Your task to perform on an android device: Open Youtube and go to the subscriptions tab Image 0: 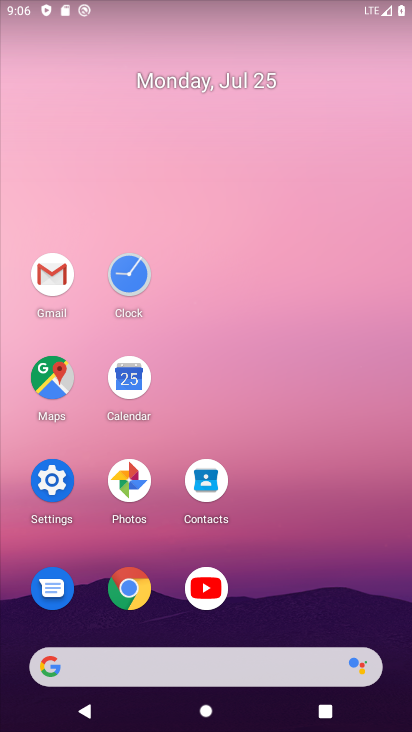
Step 0: click (211, 584)
Your task to perform on an android device: Open Youtube and go to the subscriptions tab Image 1: 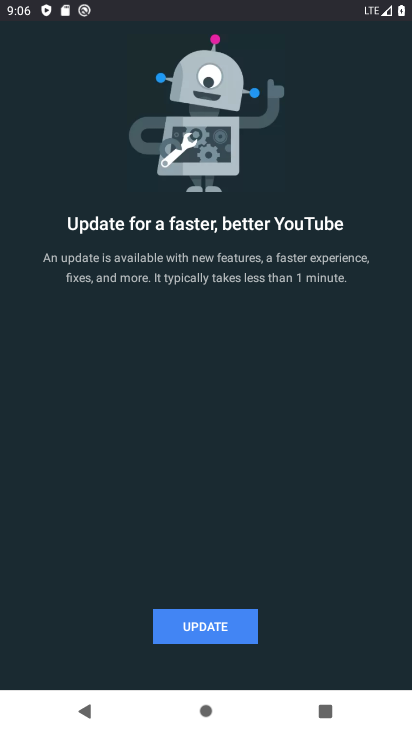
Step 1: click (204, 637)
Your task to perform on an android device: Open Youtube and go to the subscriptions tab Image 2: 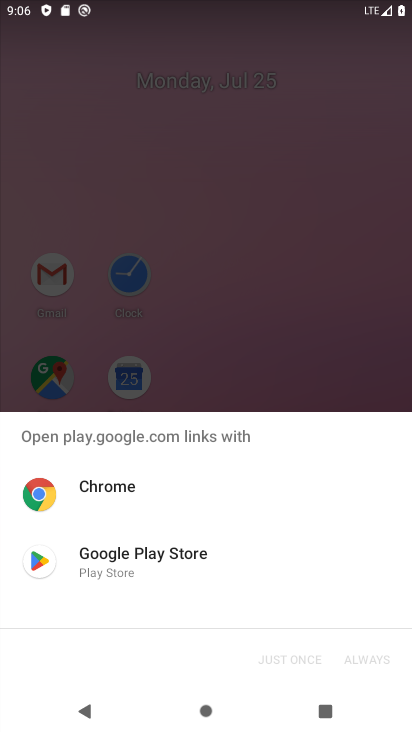
Step 2: click (121, 555)
Your task to perform on an android device: Open Youtube and go to the subscriptions tab Image 3: 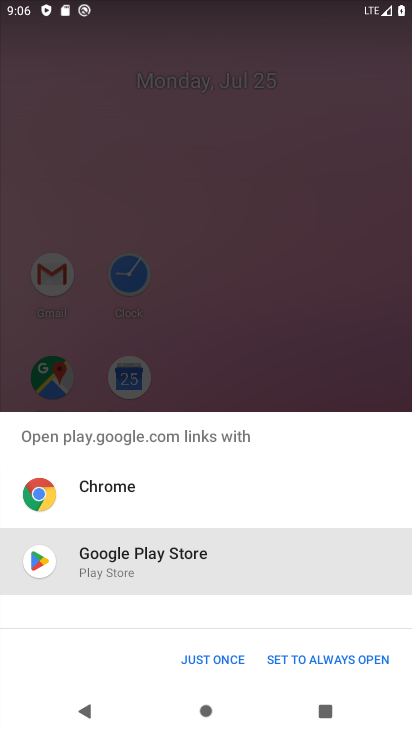
Step 3: click (212, 656)
Your task to perform on an android device: Open Youtube and go to the subscriptions tab Image 4: 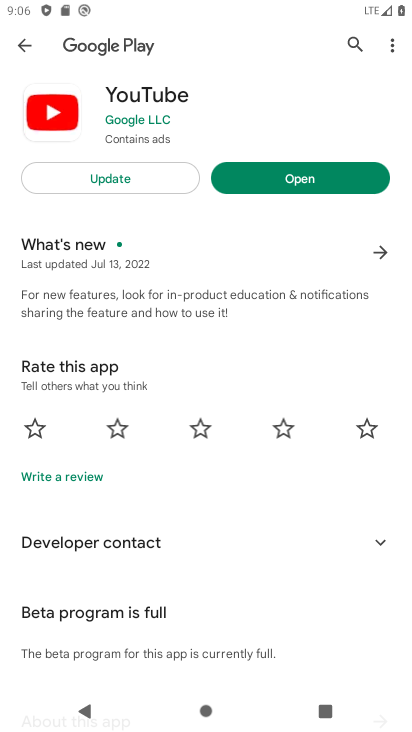
Step 4: click (131, 166)
Your task to perform on an android device: Open Youtube and go to the subscriptions tab Image 5: 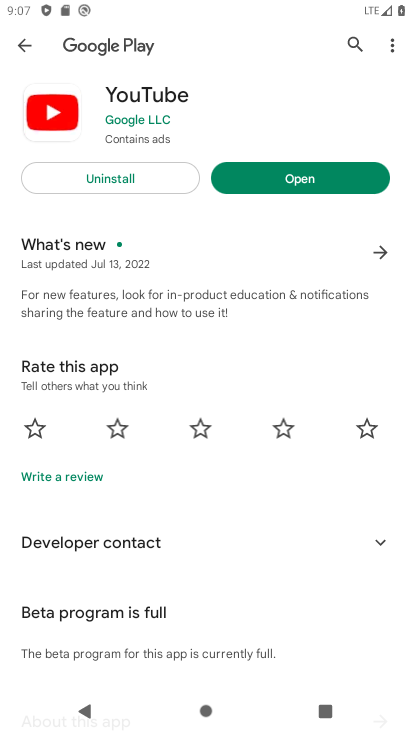
Step 5: click (284, 181)
Your task to perform on an android device: Open Youtube and go to the subscriptions tab Image 6: 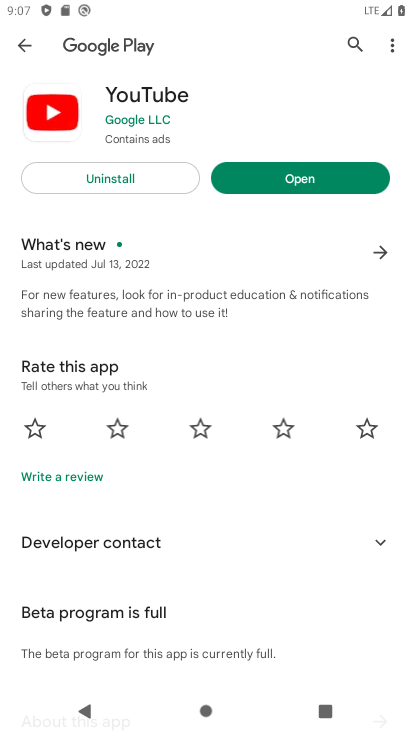
Step 6: click (284, 181)
Your task to perform on an android device: Open Youtube and go to the subscriptions tab Image 7: 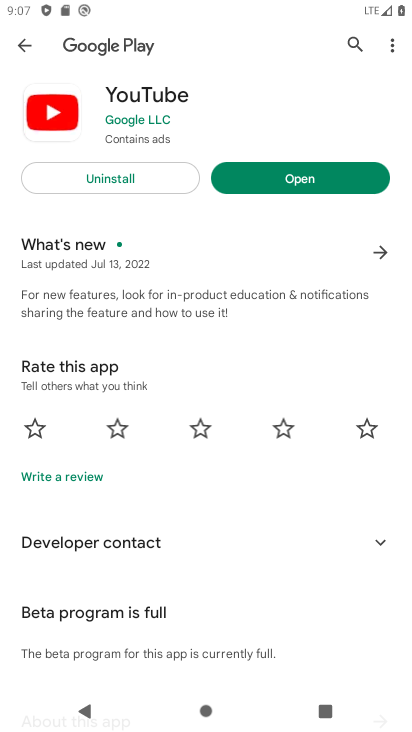
Step 7: click (284, 181)
Your task to perform on an android device: Open Youtube and go to the subscriptions tab Image 8: 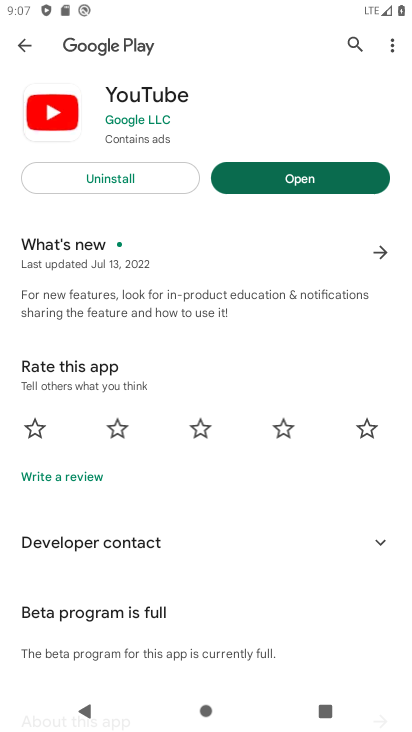
Step 8: click (284, 181)
Your task to perform on an android device: Open Youtube and go to the subscriptions tab Image 9: 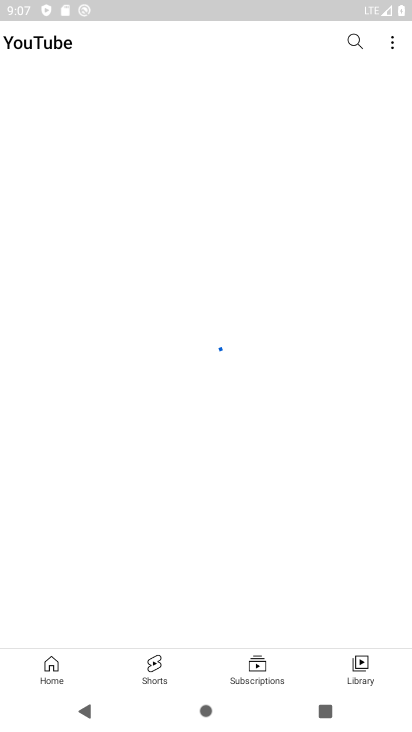
Step 9: click (256, 664)
Your task to perform on an android device: Open Youtube and go to the subscriptions tab Image 10: 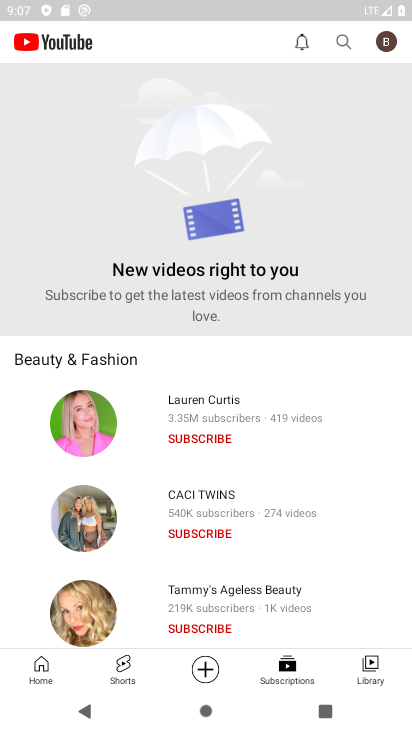
Step 10: task complete